Your task to perform on an android device: turn off javascript in the chrome app Image 0: 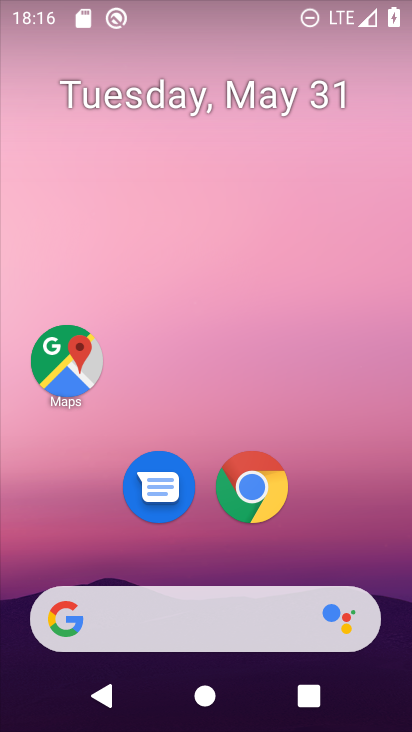
Step 0: click (152, 603)
Your task to perform on an android device: turn off javascript in the chrome app Image 1: 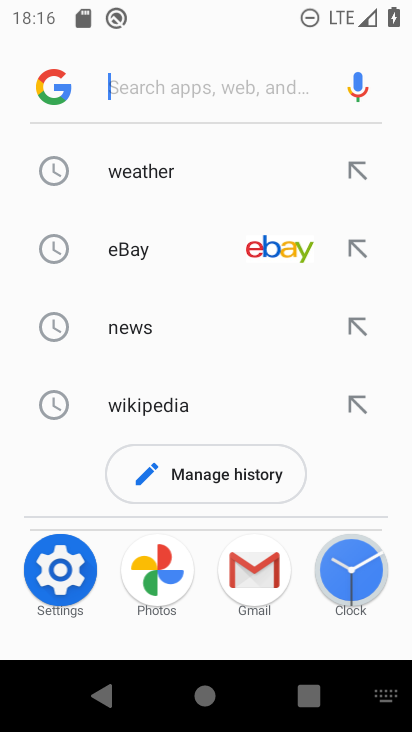
Step 1: press home button
Your task to perform on an android device: turn off javascript in the chrome app Image 2: 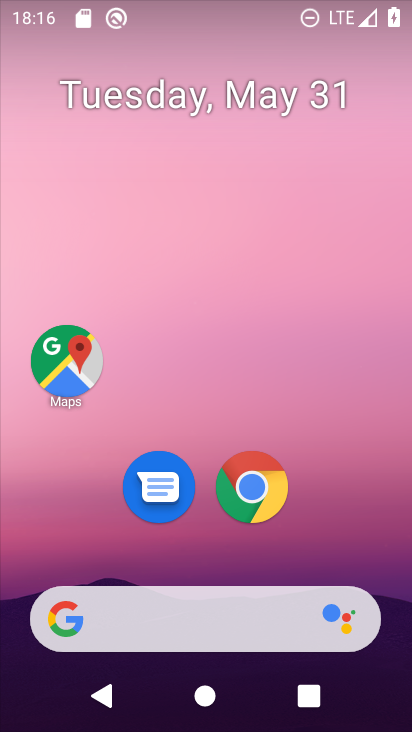
Step 2: click (257, 485)
Your task to perform on an android device: turn off javascript in the chrome app Image 3: 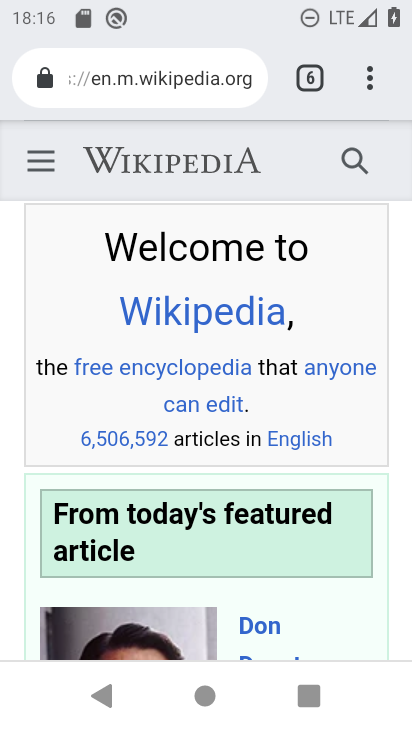
Step 3: click (368, 74)
Your task to perform on an android device: turn off javascript in the chrome app Image 4: 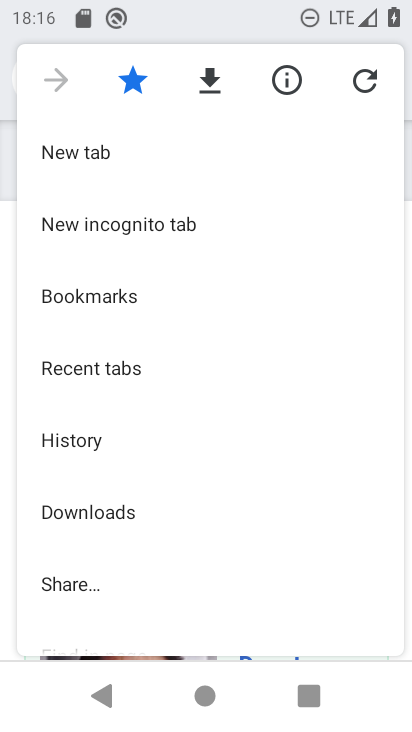
Step 4: drag from (241, 484) to (193, 153)
Your task to perform on an android device: turn off javascript in the chrome app Image 5: 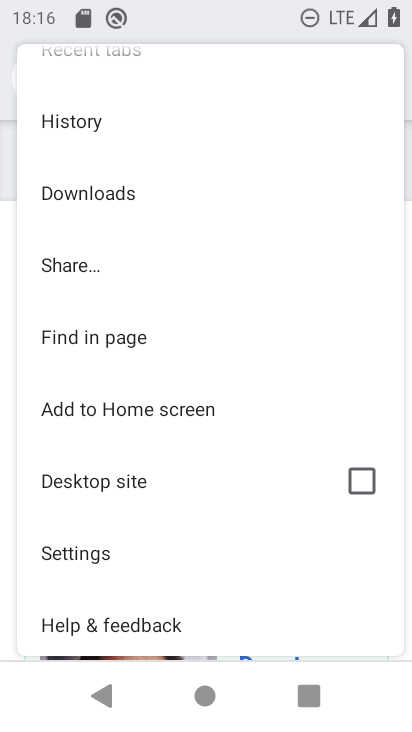
Step 5: click (89, 553)
Your task to perform on an android device: turn off javascript in the chrome app Image 6: 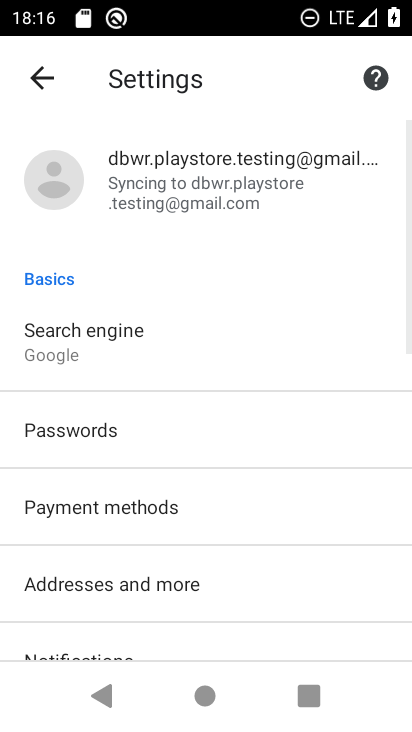
Step 6: drag from (269, 515) to (247, 264)
Your task to perform on an android device: turn off javascript in the chrome app Image 7: 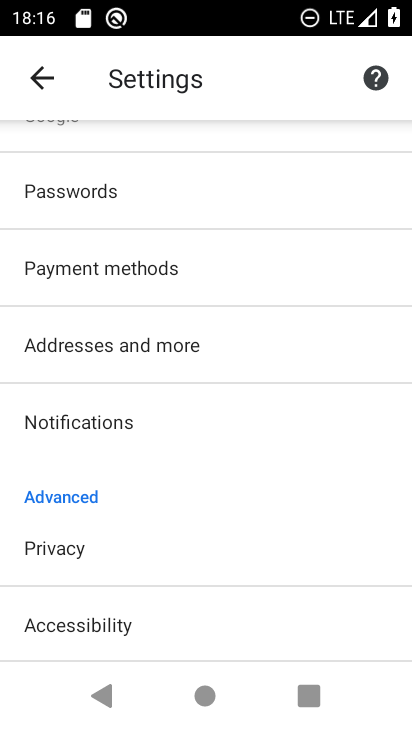
Step 7: drag from (231, 511) to (230, 88)
Your task to perform on an android device: turn off javascript in the chrome app Image 8: 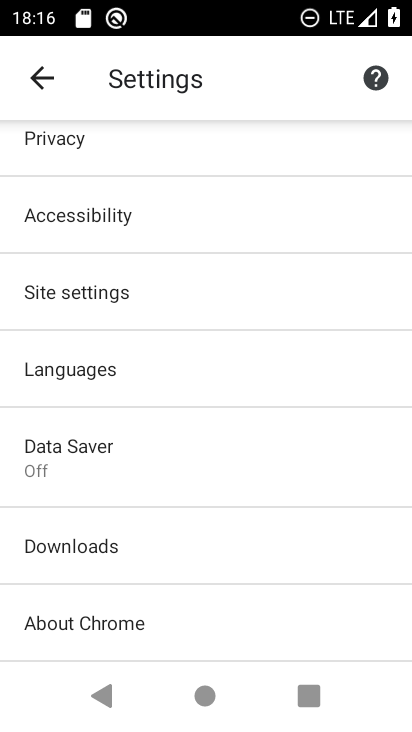
Step 8: click (75, 286)
Your task to perform on an android device: turn off javascript in the chrome app Image 9: 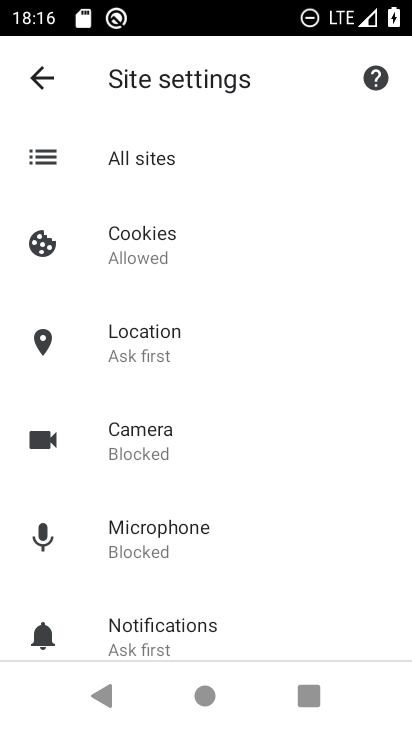
Step 9: drag from (293, 489) to (278, 266)
Your task to perform on an android device: turn off javascript in the chrome app Image 10: 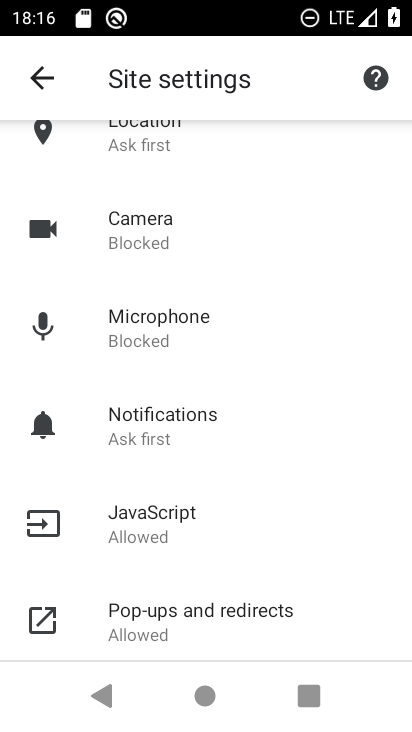
Step 10: click (170, 517)
Your task to perform on an android device: turn off javascript in the chrome app Image 11: 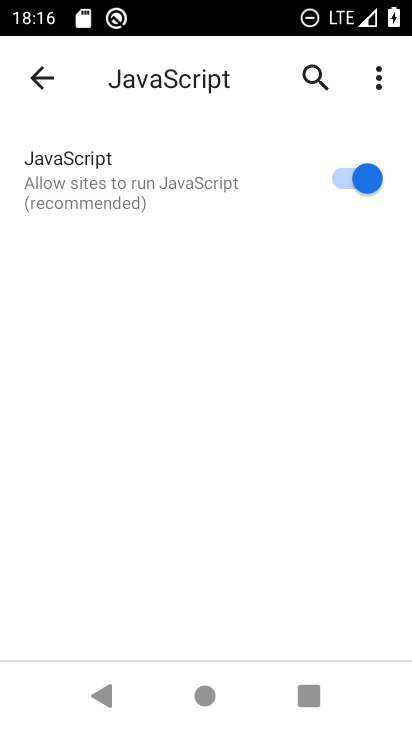
Step 11: click (359, 176)
Your task to perform on an android device: turn off javascript in the chrome app Image 12: 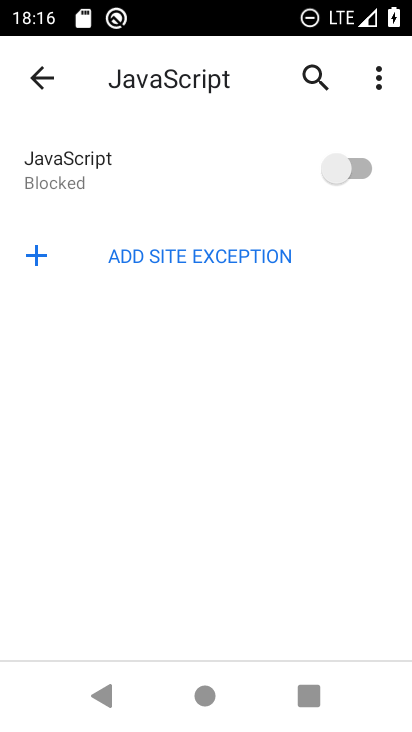
Step 12: task complete